Your task to perform on an android device: search for starred emails in the gmail app Image 0: 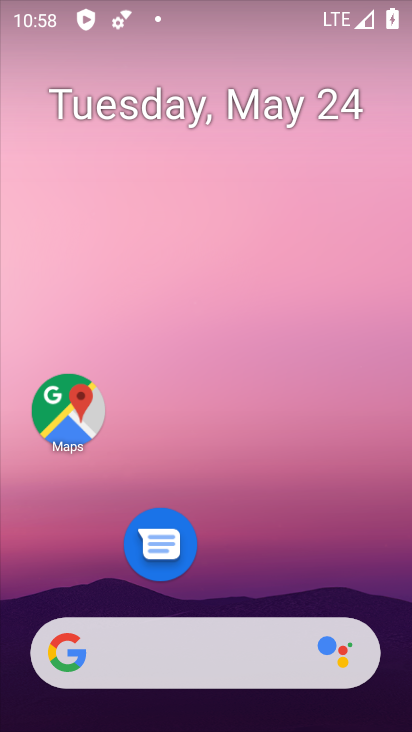
Step 0: drag from (246, 643) to (227, 269)
Your task to perform on an android device: search for starred emails in the gmail app Image 1: 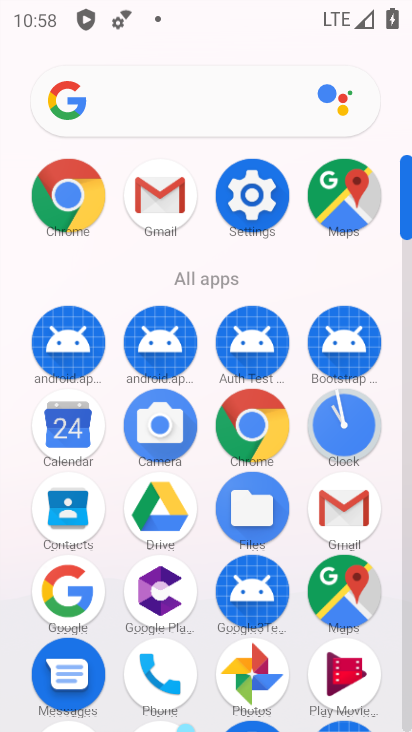
Step 1: click (162, 196)
Your task to perform on an android device: search for starred emails in the gmail app Image 2: 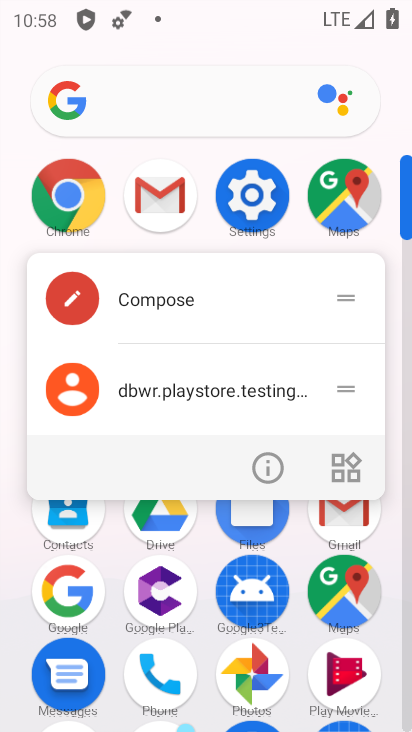
Step 2: click (162, 196)
Your task to perform on an android device: search for starred emails in the gmail app Image 3: 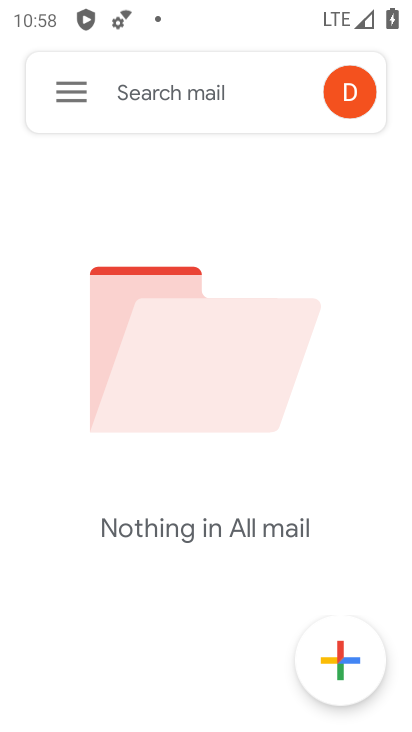
Step 3: click (76, 112)
Your task to perform on an android device: search for starred emails in the gmail app Image 4: 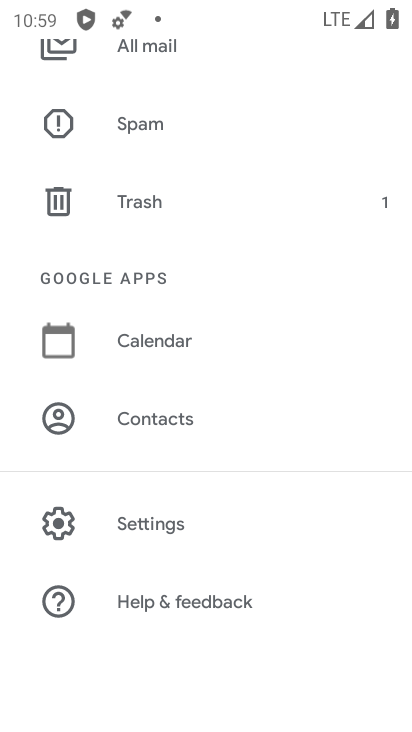
Step 4: drag from (169, 218) to (183, 729)
Your task to perform on an android device: search for starred emails in the gmail app Image 5: 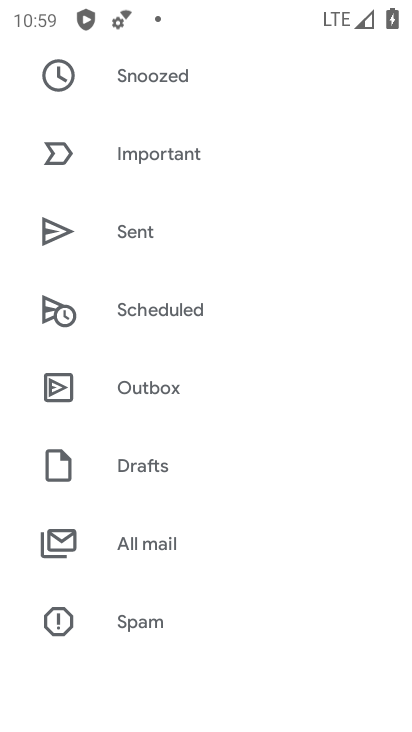
Step 5: drag from (132, 208) to (171, 629)
Your task to perform on an android device: search for starred emails in the gmail app Image 6: 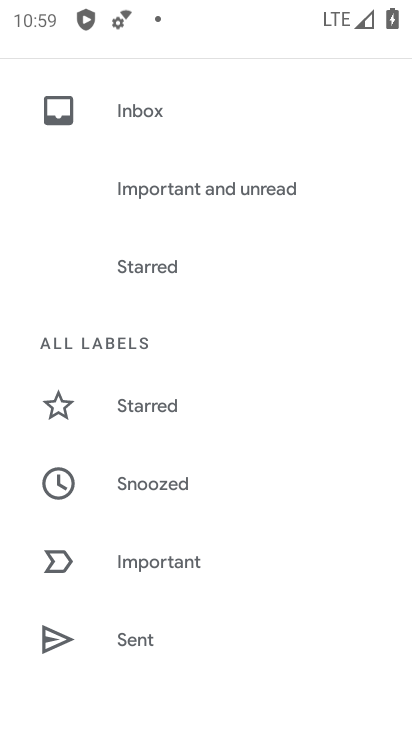
Step 6: click (136, 183)
Your task to perform on an android device: search for starred emails in the gmail app Image 7: 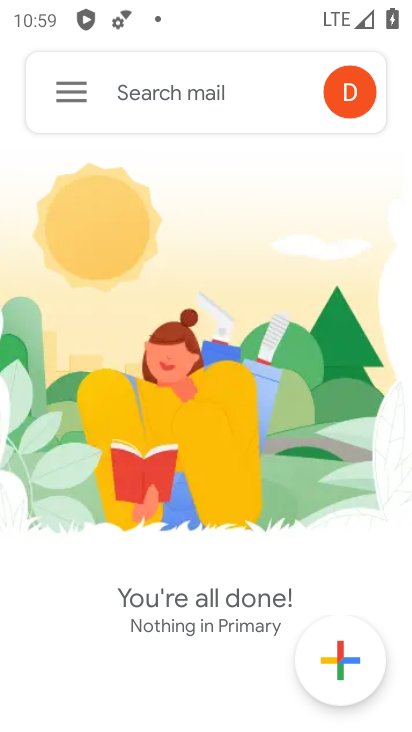
Step 7: click (74, 89)
Your task to perform on an android device: search for starred emails in the gmail app Image 8: 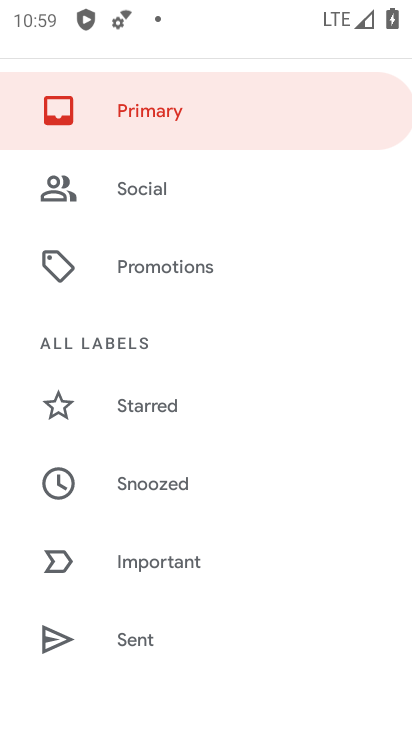
Step 8: click (142, 409)
Your task to perform on an android device: search for starred emails in the gmail app Image 9: 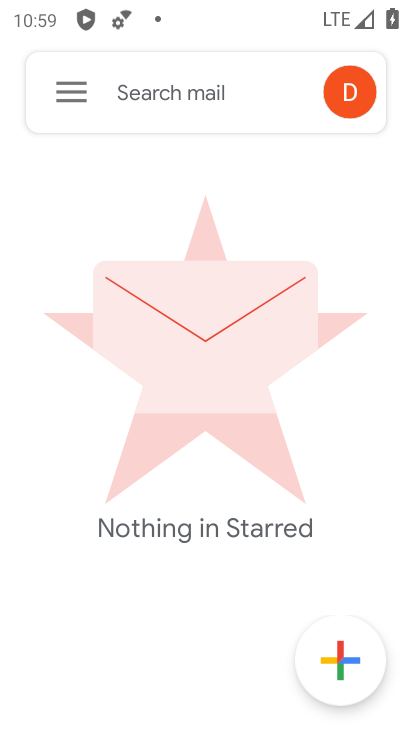
Step 9: task complete